Your task to perform on an android device: Go to sound settings Image 0: 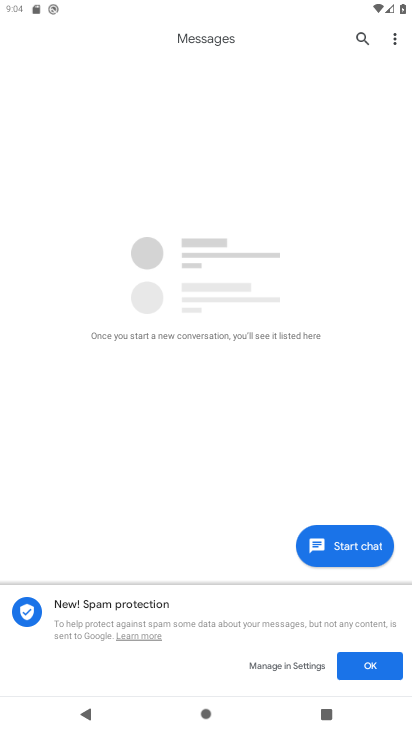
Step 0: press home button
Your task to perform on an android device: Go to sound settings Image 1: 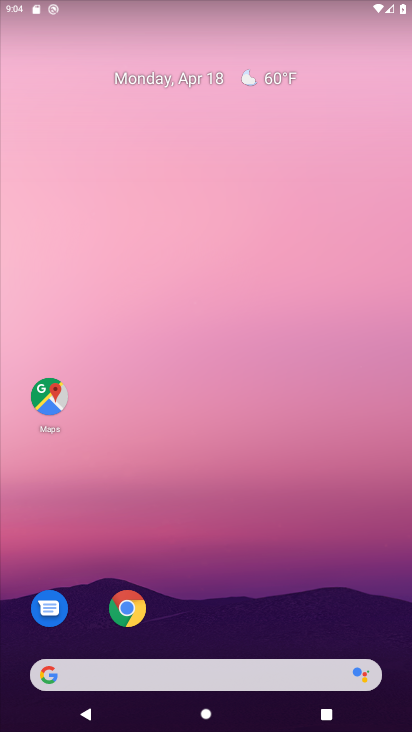
Step 1: drag from (352, 591) to (326, 101)
Your task to perform on an android device: Go to sound settings Image 2: 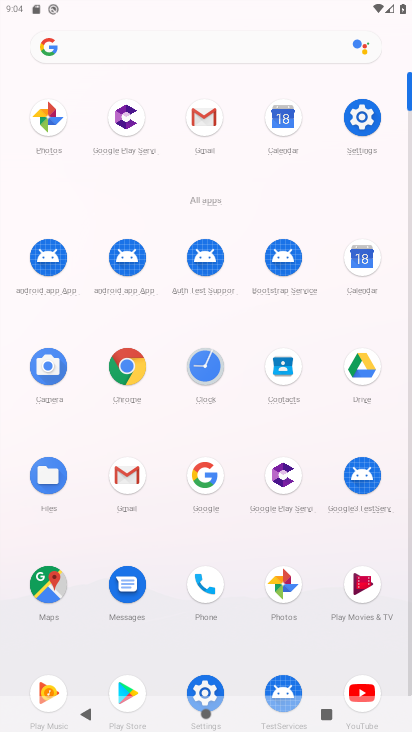
Step 2: click (351, 122)
Your task to perform on an android device: Go to sound settings Image 3: 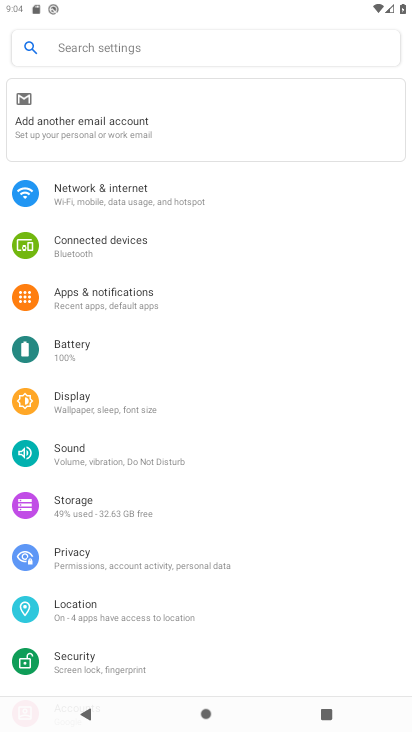
Step 3: click (90, 455)
Your task to perform on an android device: Go to sound settings Image 4: 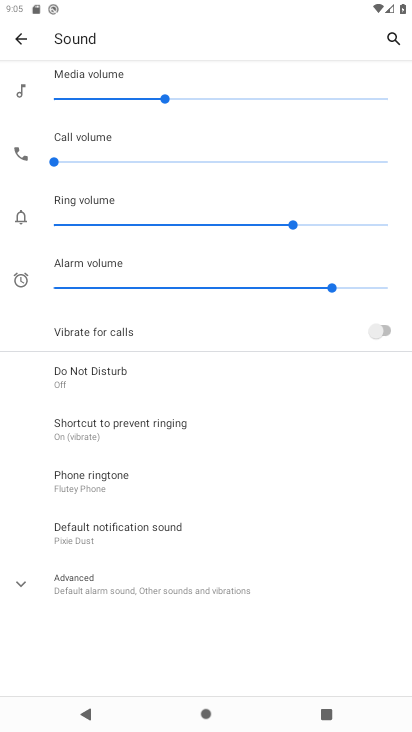
Step 4: task complete